Your task to perform on an android device: search for starred emails in the gmail app Image 0: 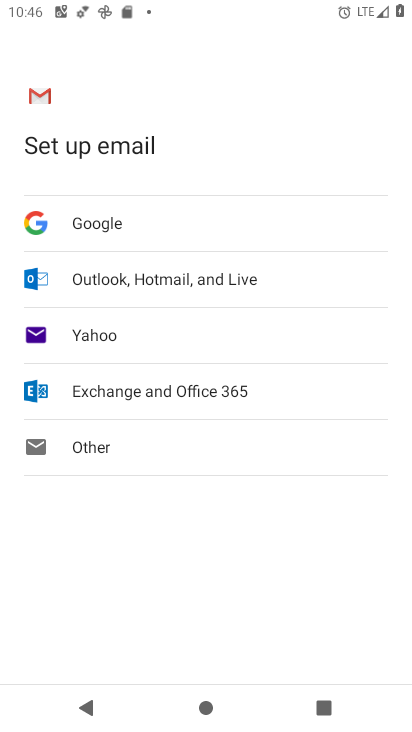
Step 0: press home button
Your task to perform on an android device: search for starred emails in the gmail app Image 1: 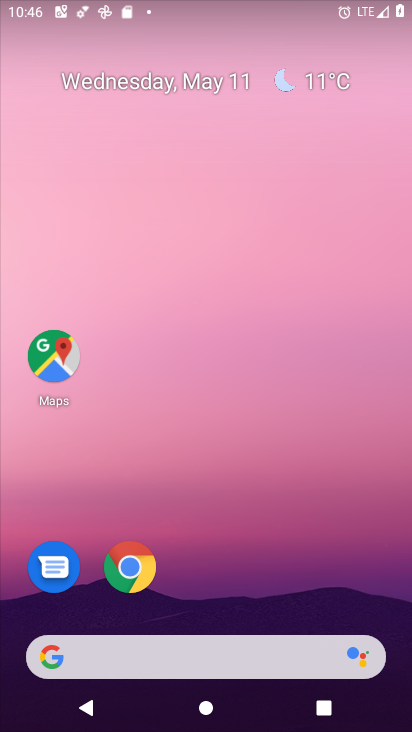
Step 1: drag from (249, 519) to (184, 114)
Your task to perform on an android device: search for starred emails in the gmail app Image 2: 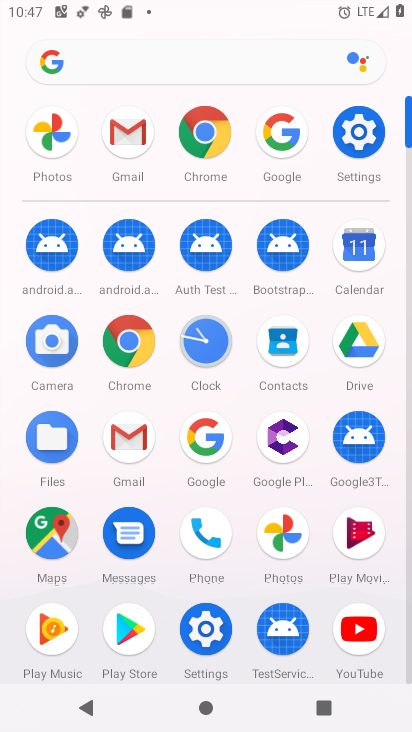
Step 2: click (124, 140)
Your task to perform on an android device: search for starred emails in the gmail app Image 3: 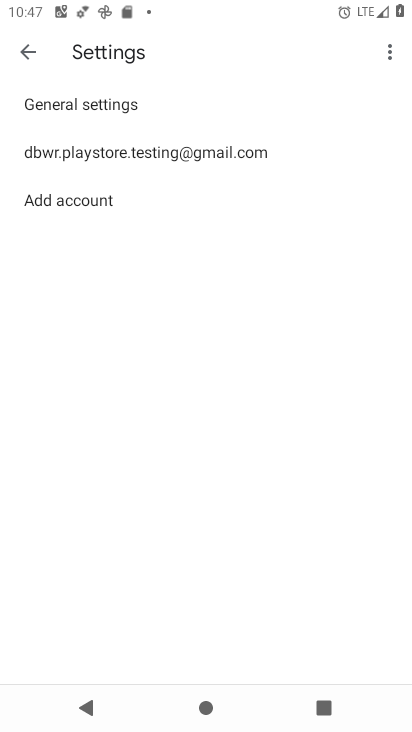
Step 3: click (28, 54)
Your task to perform on an android device: search for starred emails in the gmail app Image 4: 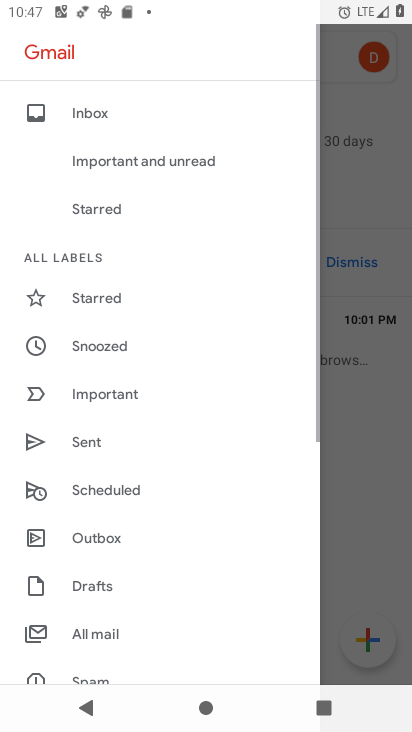
Step 4: click (358, 439)
Your task to perform on an android device: search for starred emails in the gmail app Image 5: 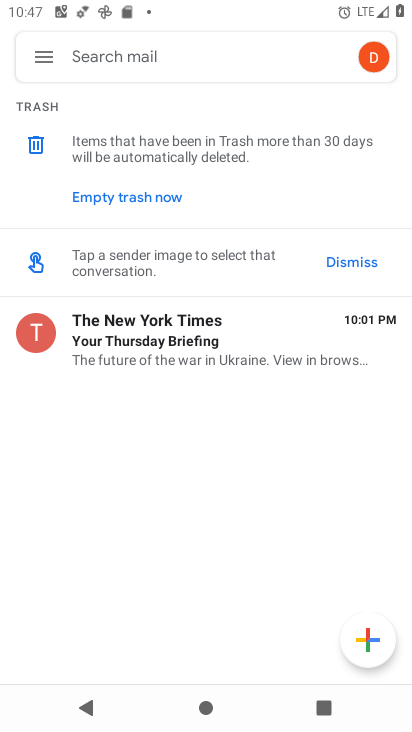
Step 5: click (122, 59)
Your task to perform on an android device: search for starred emails in the gmail app Image 6: 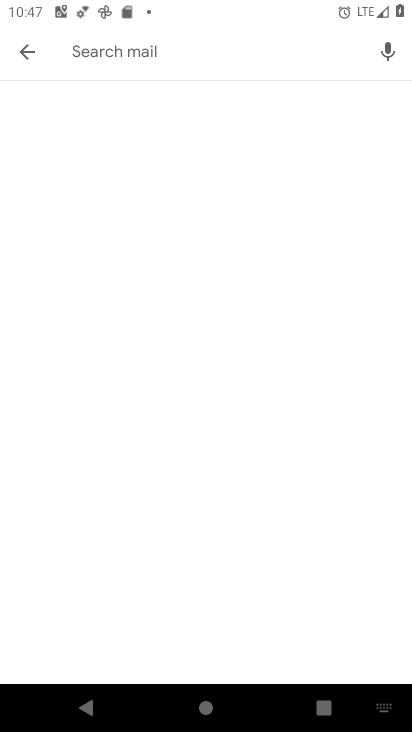
Step 6: type "starred"
Your task to perform on an android device: search for starred emails in the gmail app Image 7: 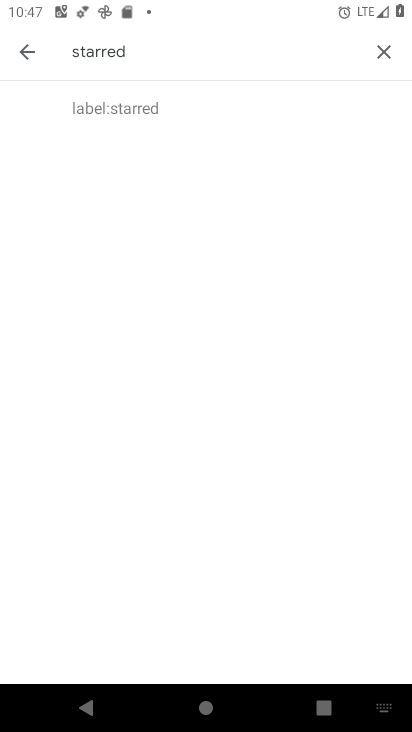
Step 7: click (147, 93)
Your task to perform on an android device: search for starred emails in the gmail app Image 8: 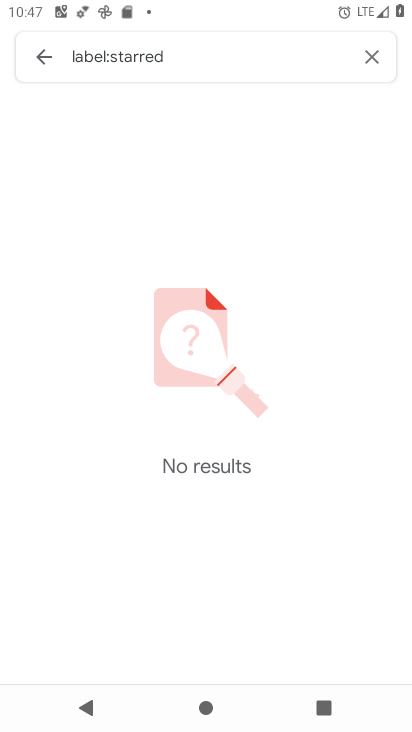
Step 8: task complete